Your task to perform on an android device: allow cookies in the chrome app Image 0: 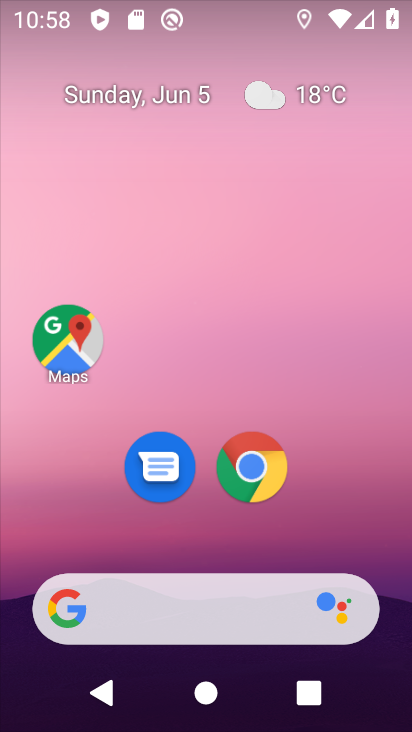
Step 0: drag from (216, 552) to (159, 56)
Your task to perform on an android device: allow cookies in the chrome app Image 1: 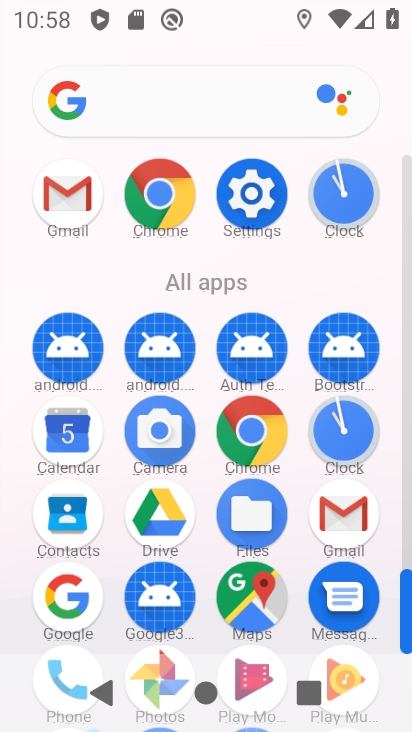
Step 1: click (241, 430)
Your task to perform on an android device: allow cookies in the chrome app Image 2: 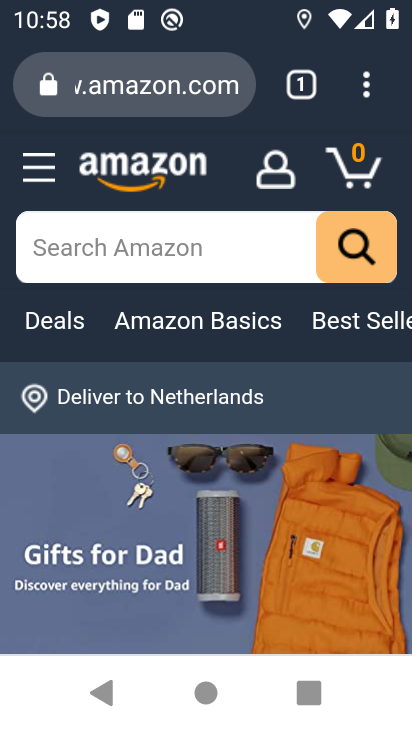
Step 2: click (361, 103)
Your task to perform on an android device: allow cookies in the chrome app Image 3: 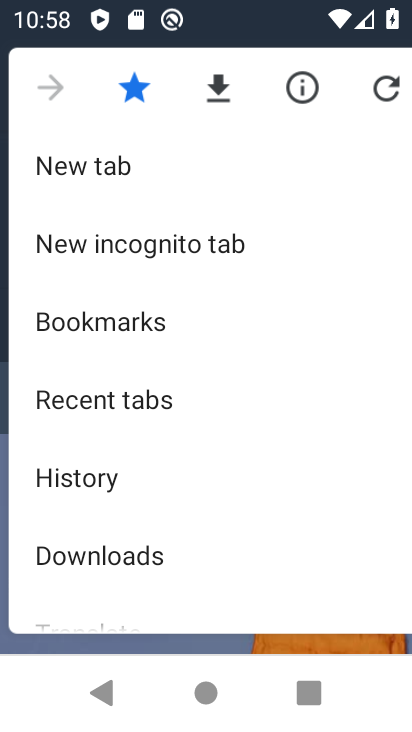
Step 3: drag from (124, 514) to (115, 93)
Your task to perform on an android device: allow cookies in the chrome app Image 4: 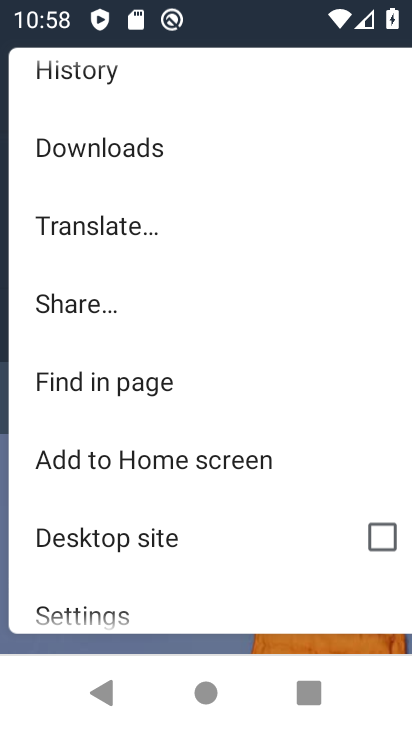
Step 4: click (73, 620)
Your task to perform on an android device: allow cookies in the chrome app Image 5: 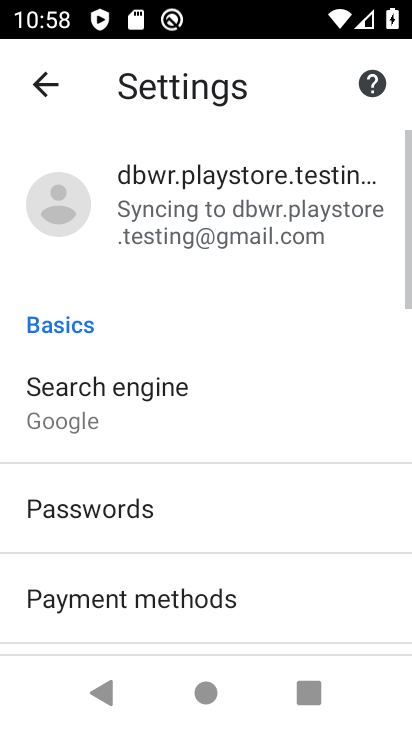
Step 5: drag from (73, 620) to (84, 46)
Your task to perform on an android device: allow cookies in the chrome app Image 6: 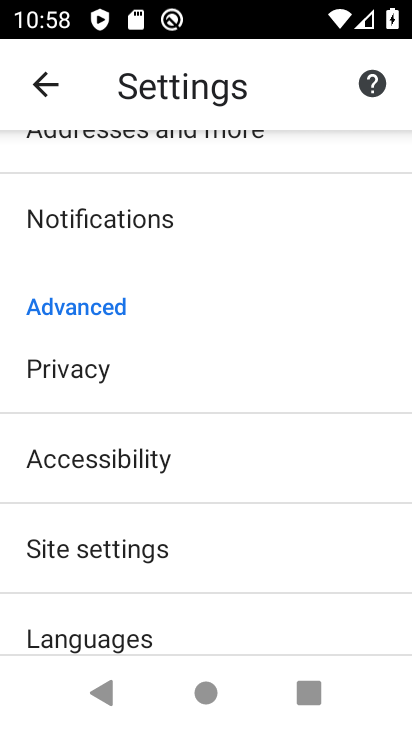
Step 6: click (90, 373)
Your task to perform on an android device: allow cookies in the chrome app Image 7: 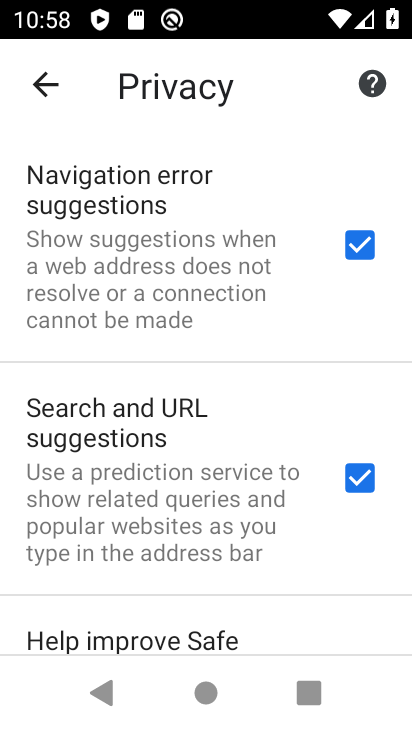
Step 7: click (36, 79)
Your task to perform on an android device: allow cookies in the chrome app Image 8: 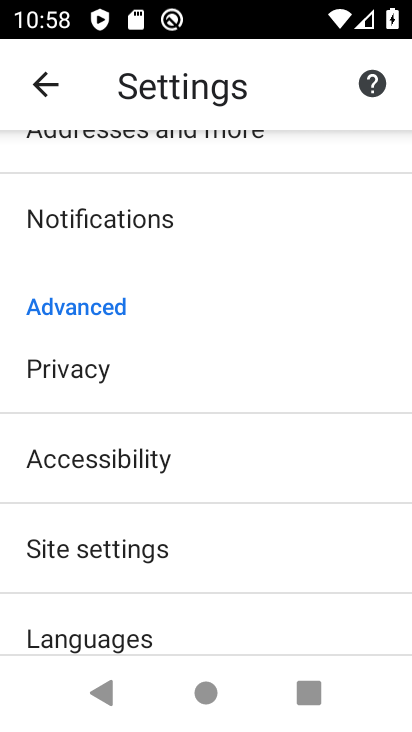
Step 8: click (121, 543)
Your task to perform on an android device: allow cookies in the chrome app Image 9: 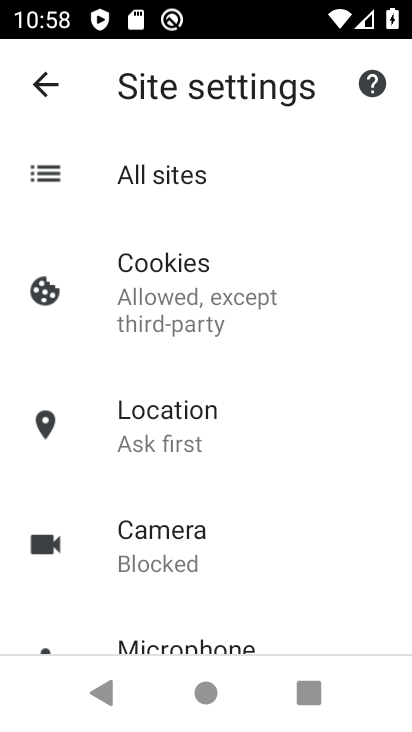
Step 9: click (129, 295)
Your task to perform on an android device: allow cookies in the chrome app Image 10: 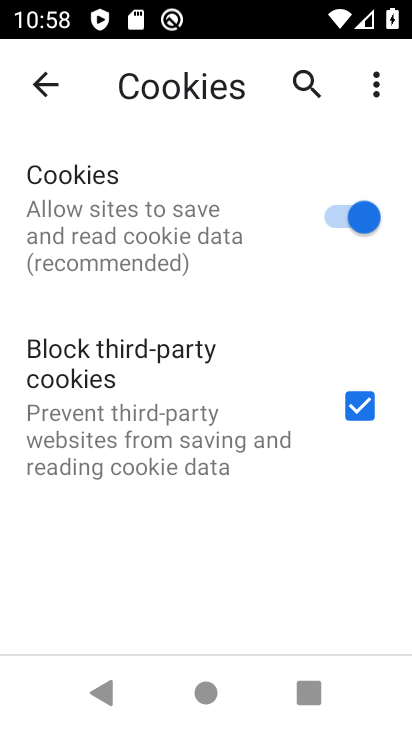
Step 10: task complete